Your task to perform on an android device: Open location settings Image 0: 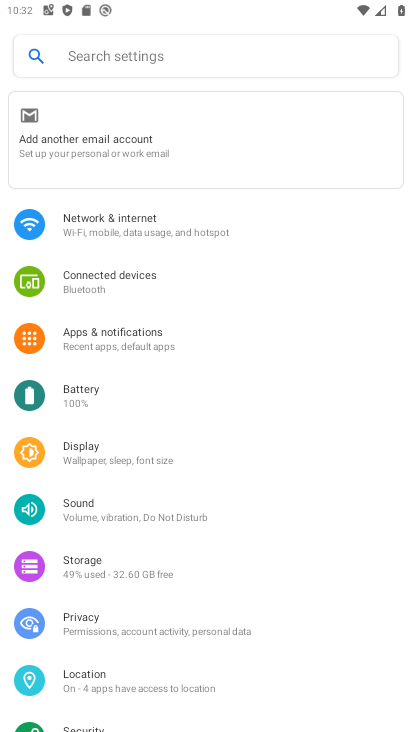
Step 0: drag from (165, 609) to (166, 459)
Your task to perform on an android device: Open location settings Image 1: 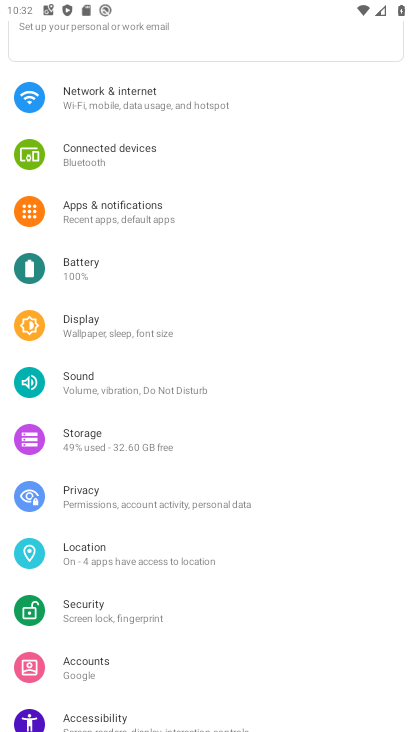
Step 1: click (132, 556)
Your task to perform on an android device: Open location settings Image 2: 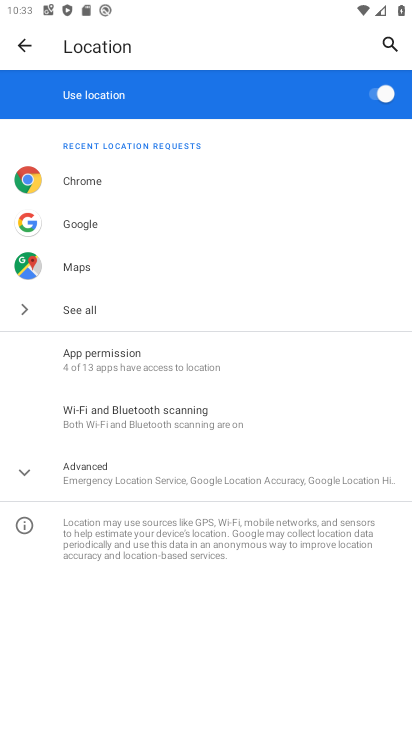
Step 2: task complete